Your task to perform on an android device: toggle translation in the chrome app Image 0: 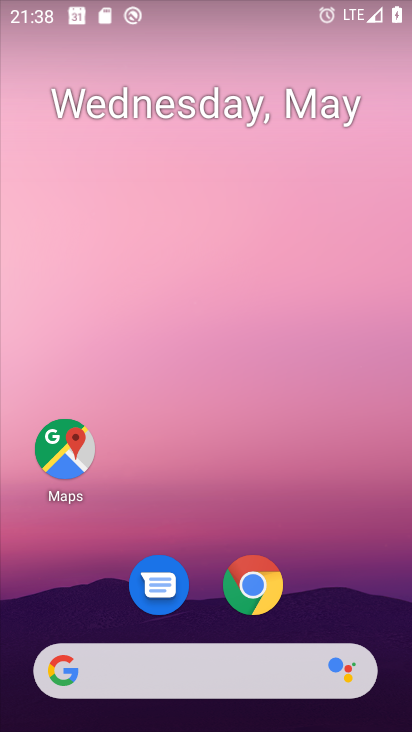
Step 0: click (247, 581)
Your task to perform on an android device: toggle translation in the chrome app Image 1: 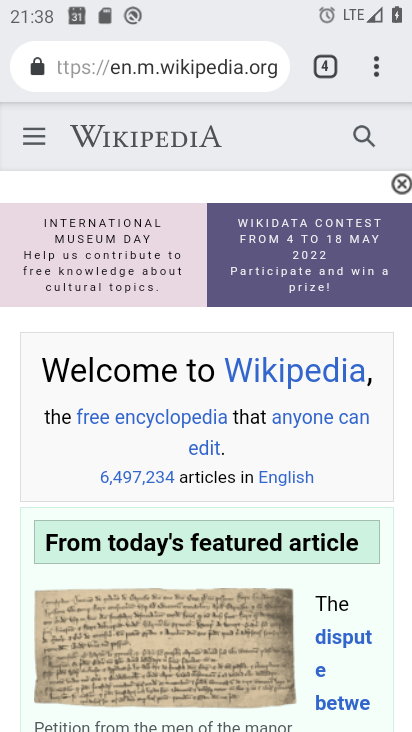
Step 1: click (377, 64)
Your task to perform on an android device: toggle translation in the chrome app Image 2: 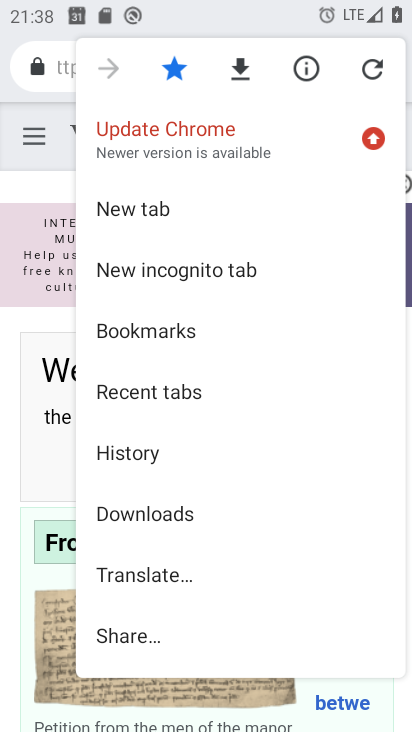
Step 2: drag from (258, 514) to (303, 208)
Your task to perform on an android device: toggle translation in the chrome app Image 3: 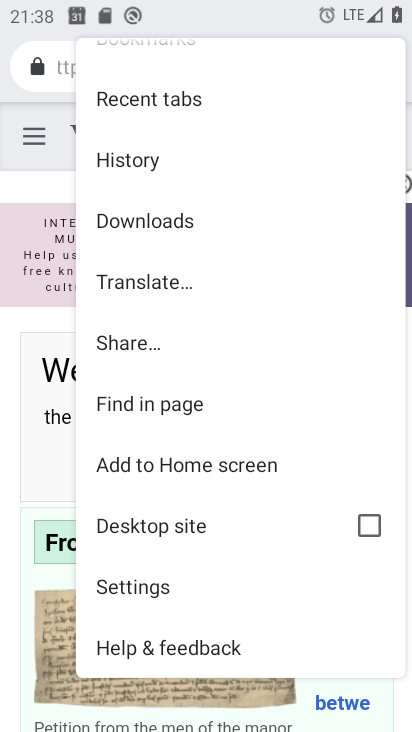
Step 3: click (166, 589)
Your task to perform on an android device: toggle translation in the chrome app Image 4: 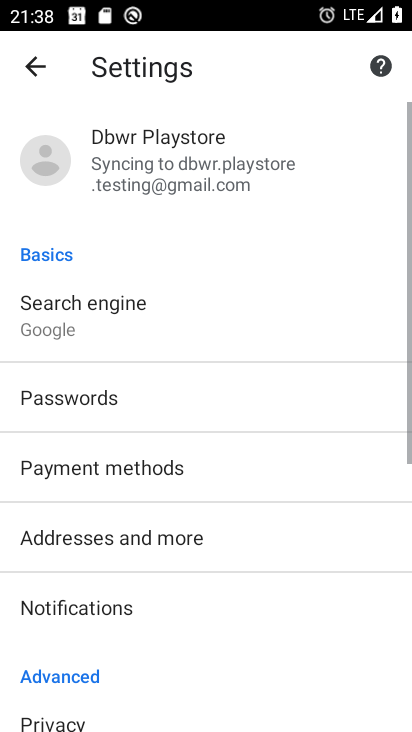
Step 4: drag from (228, 553) to (303, 161)
Your task to perform on an android device: toggle translation in the chrome app Image 5: 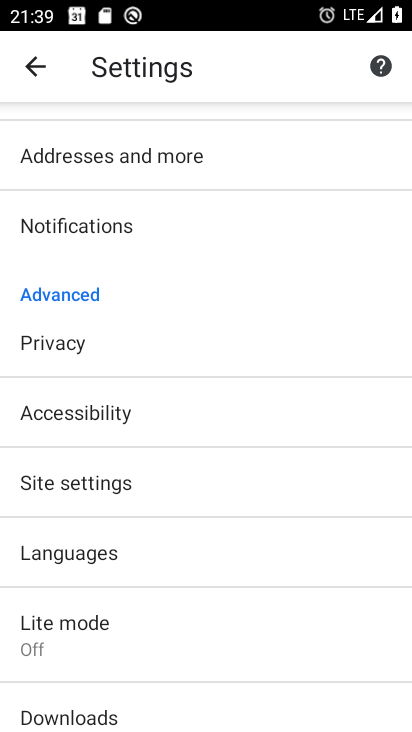
Step 5: click (241, 552)
Your task to perform on an android device: toggle translation in the chrome app Image 6: 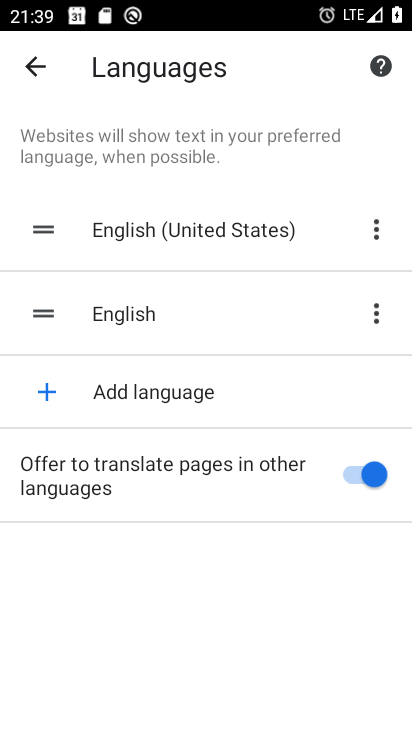
Step 6: click (354, 472)
Your task to perform on an android device: toggle translation in the chrome app Image 7: 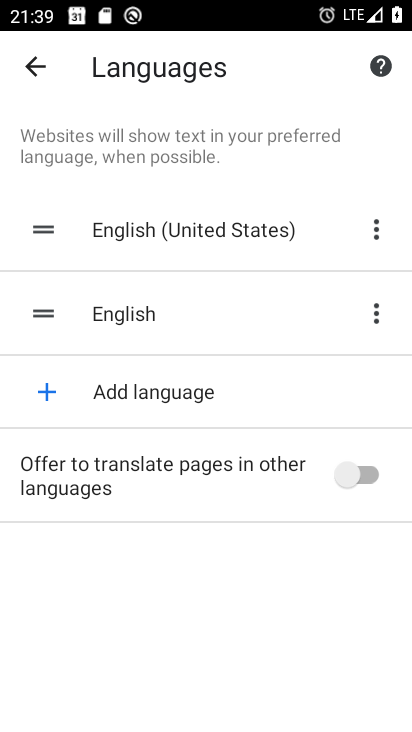
Step 7: task complete